Your task to perform on an android device: read, delete, or share a saved page in the chrome app Image 0: 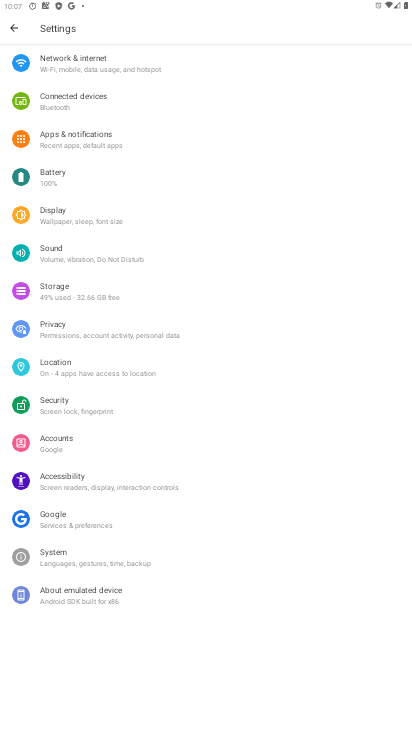
Step 0: drag from (132, 602) to (176, 315)
Your task to perform on an android device: read, delete, or share a saved page in the chrome app Image 1: 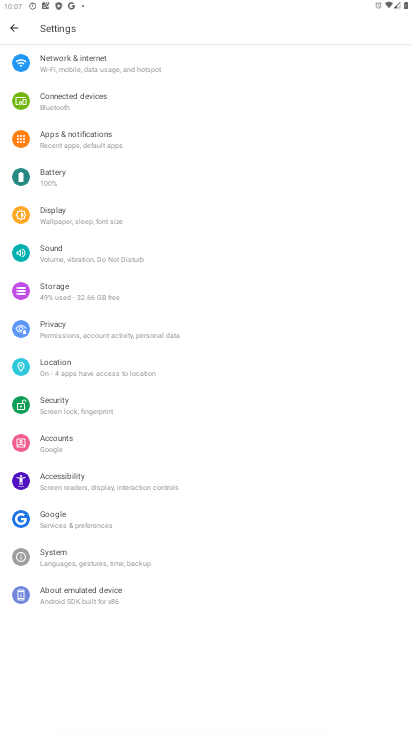
Step 1: drag from (178, 135) to (102, 722)
Your task to perform on an android device: read, delete, or share a saved page in the chrome app Image 2: 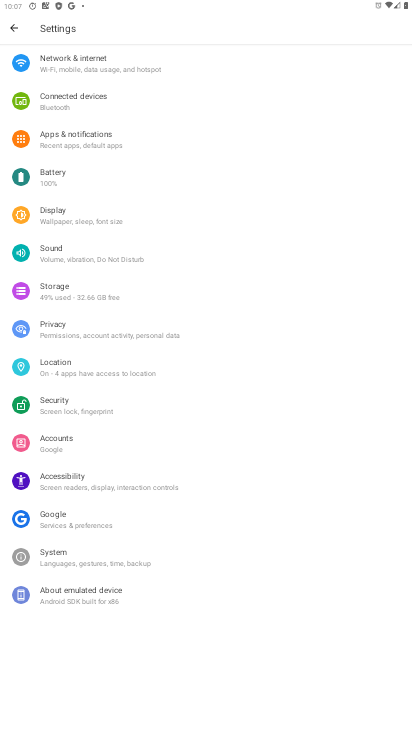
Step 2: press home button
Your task to perform on an android device: read, delete, or share a saved page in the chrome app Image 3: 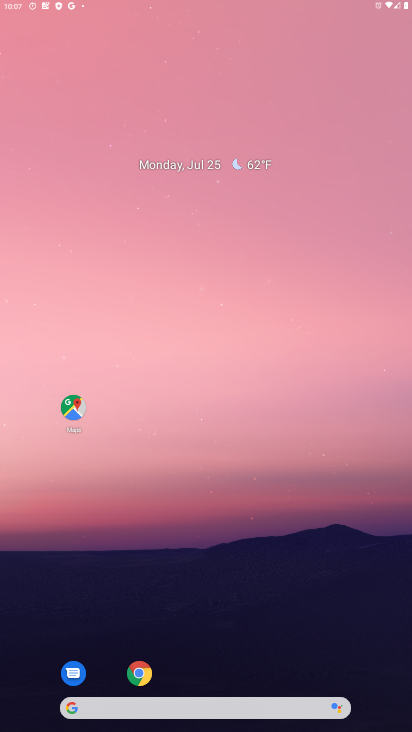
Step 3: drag from (151, 597) to (102, 4)
Your task to perform on an android device: read, delete, or share a saved page in the chrome app Image 4: 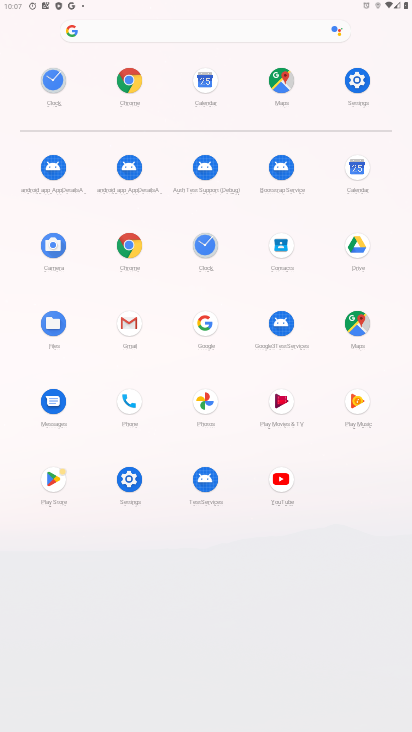
Step 4: click (126, 234)
Your task to perform on an android device: read, delete, or share a saved page in the chrome app Image 5: 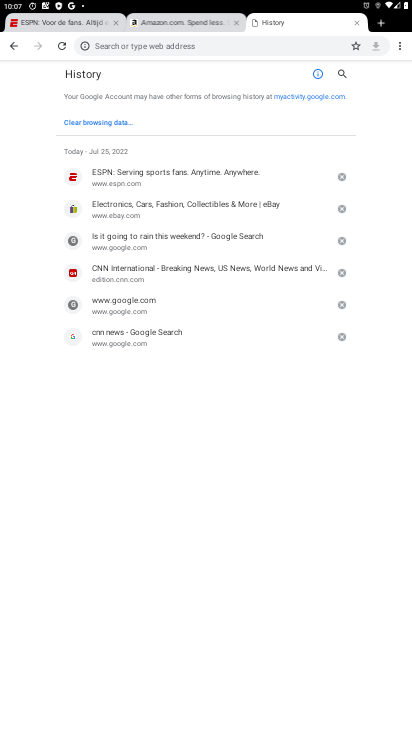
Step 5: click (123, 174)
Your task to perform on an android device: read, delete, or share a saved page in the chrome app Image 6: 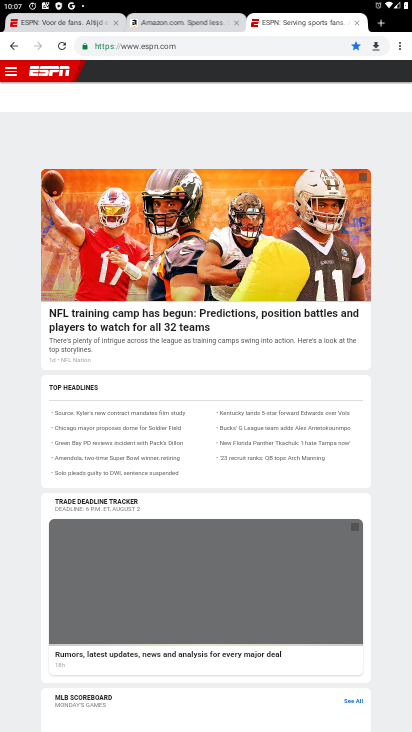
Step 6: click (403, 42)
Your task to perform on an android device: read, delete, or share a saved page in the chrome app Image 7: 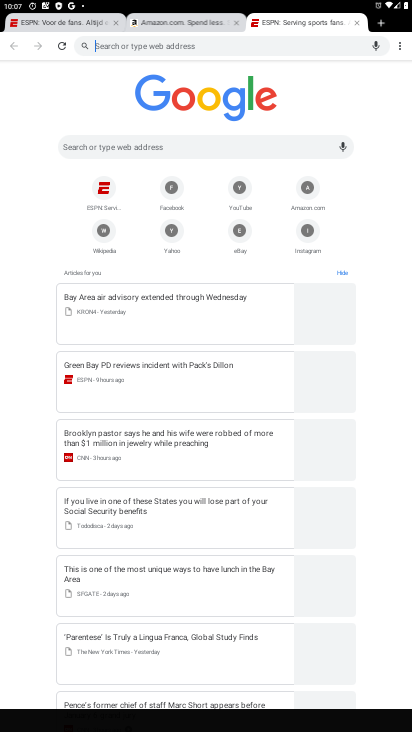
Step 7: task complete